Your task to perform on an android device: Go to sound settings Image 0: 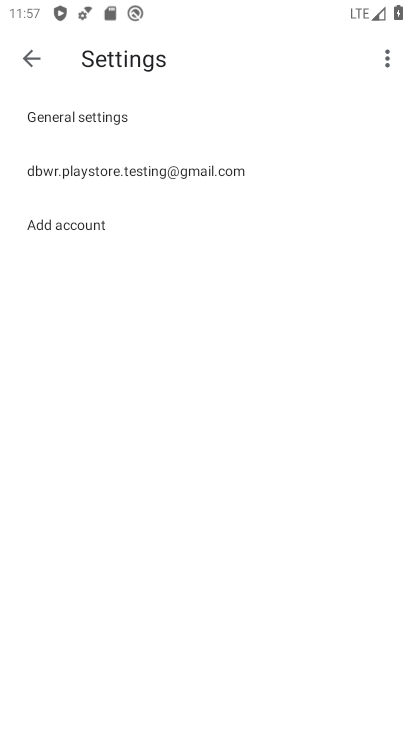
Step 0: press home button
Your task to perform on an android device: Go to sound settings Image 1: 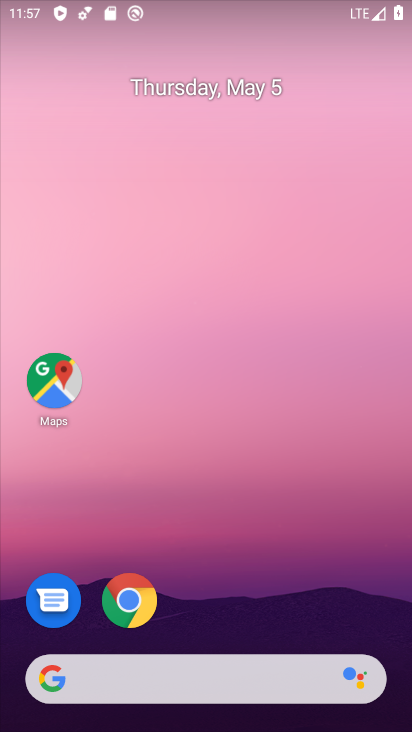
Step 1: drag from (365, 607) to (306, 30)
Your task to perform on an android device: Go to sound settings Image 2: 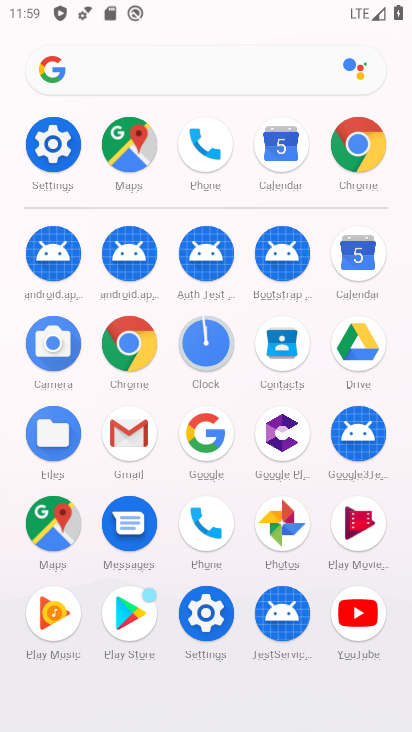
Step 2: click (207, 626)
Your task to perform on an android device: Go to sound settings Image 3: 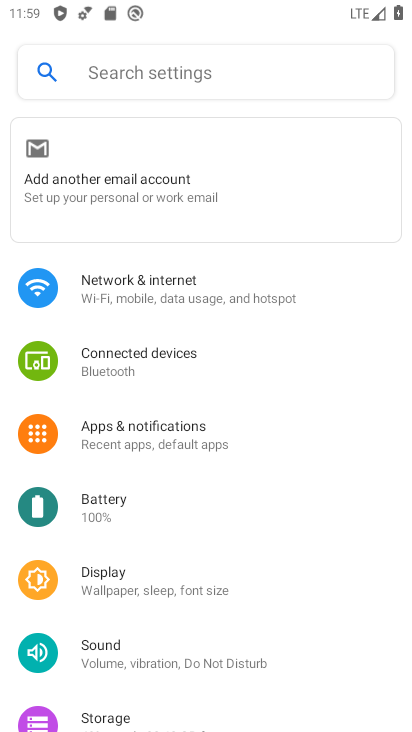
Step 3: click (149, 642)
Your task to perform on an android device: Go to sound settings Image 4: 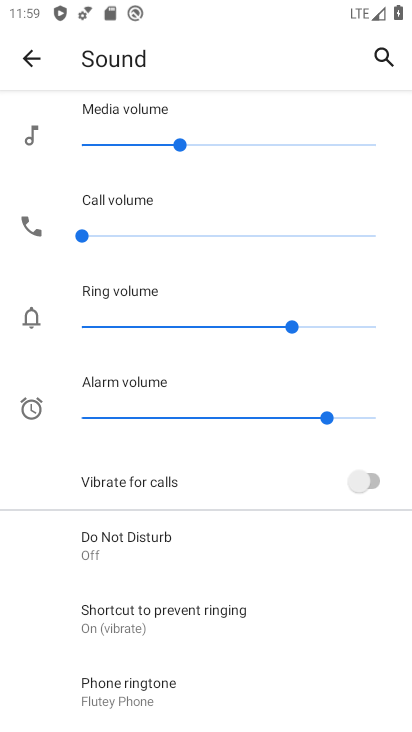
Step 4: task complete